Your task to perform on an android device: change the upload size in google photos Image 0: 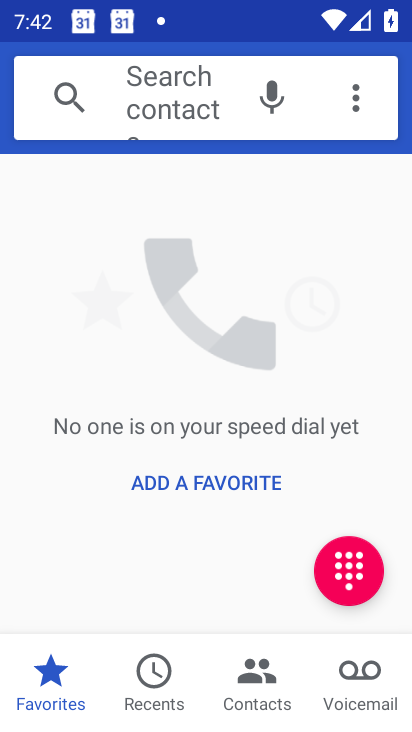
Step 0: press home button
Your task to perform on an android device: change the upload size in google photos Image 1: 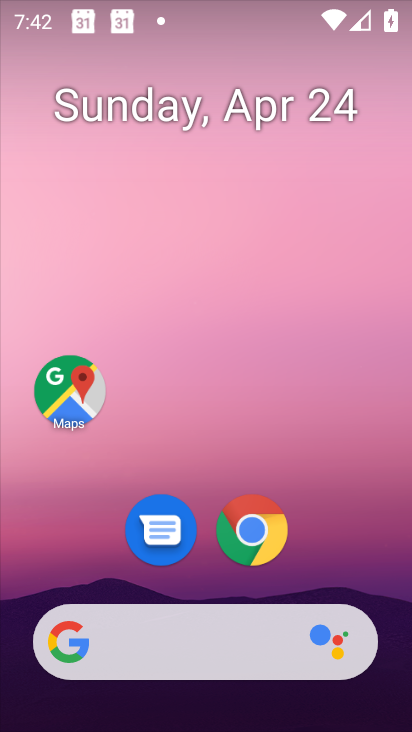
Step 1: drag from (222, 586) to (248, 117)
Your task to perform on an android device: change the upload size in google photos Image 2: 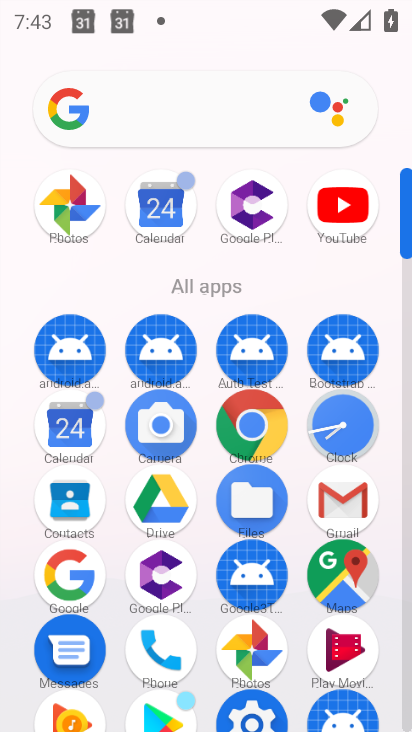
Step 2: click (90, 187)
Your task to perform on an android device: change the upload size in google photos Image 3: 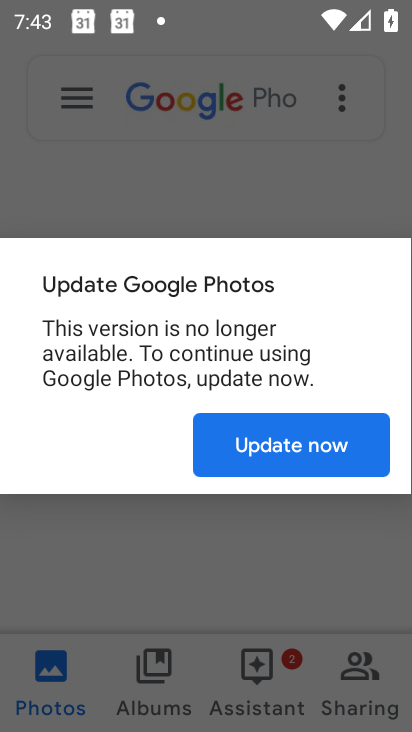
Step 3: click (344, 455)
Your task to perform on an android device: change the upload size in google photos Image 4: 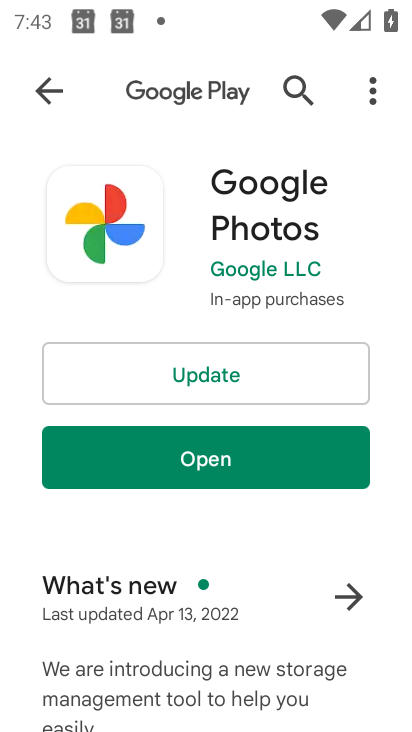
Step 4: click (250, 448)
Your task to perform on an android device: change the upload size in google photos Image 5: 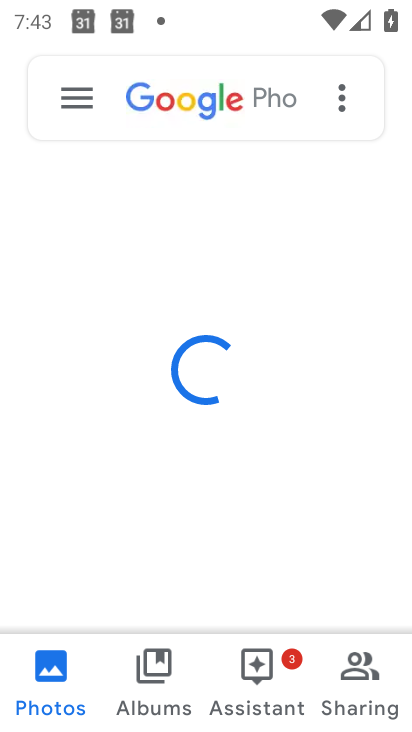
Step 5: click (85, 105)
Your task to perform on an android device: change the upload size in google photos Image 6: 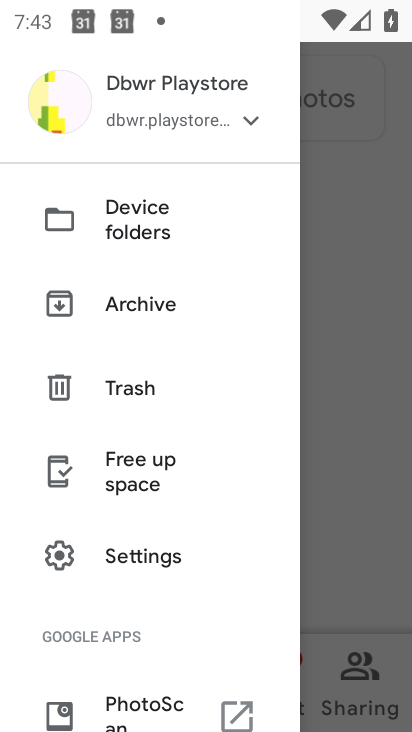
Step 6: click (126, 568)
Your task to perform on an android device: change the upload size in google photos Image 7: 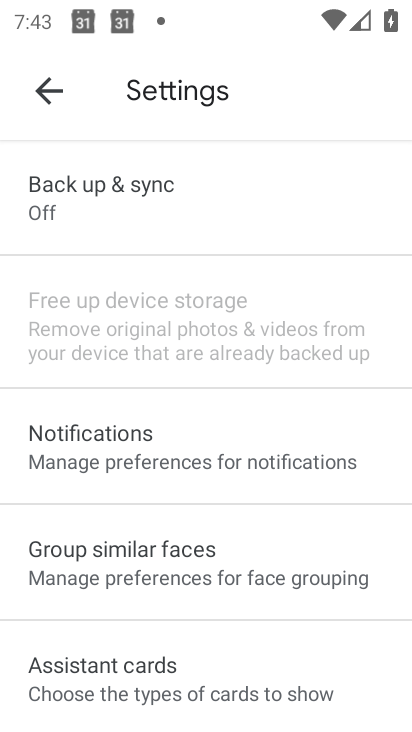
Step 7: click (231, 196)
Your task to perform on an android device: change the upload size in google photos Image 8: 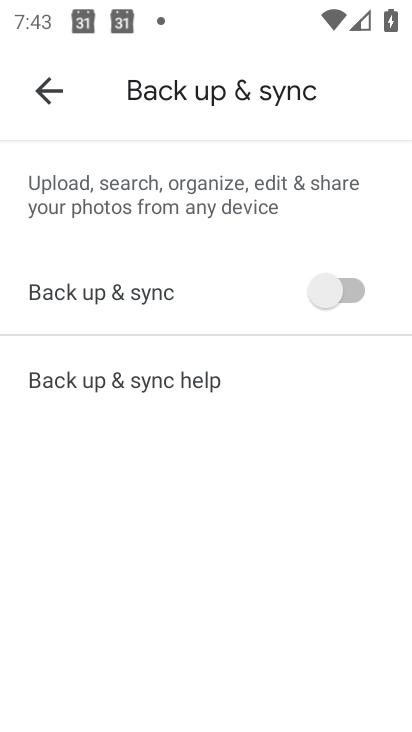
Step 8: click (329, 297)
Your task to perform on an android device: change the upload size in google photos Image 9: 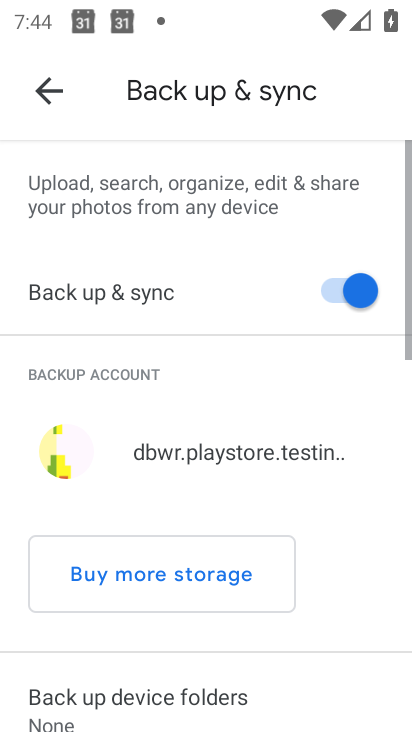
Step 9: drag from (176, 486) to (195, 102)
Your task to perform on an android device: change the upload size in google photos Image 10: 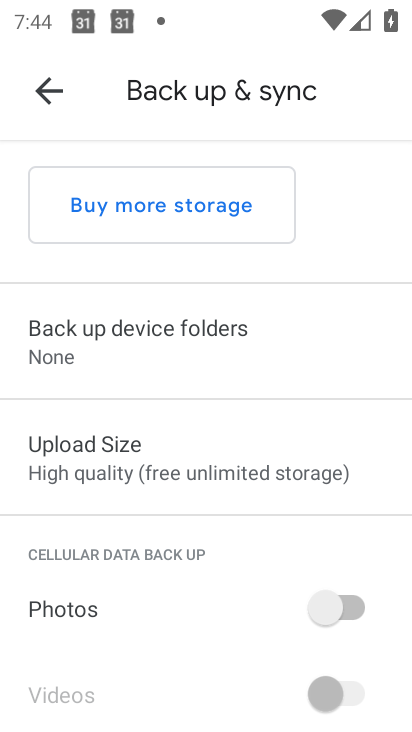
Step 10: click (146, 440)
Your task to perform on an android device: change the upload size in google photos Image 11: 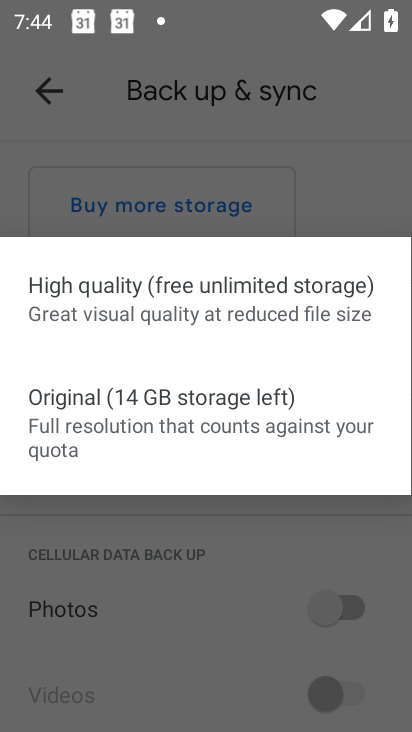
Step 11: click (259, 384)
Your task to perform on an android device: change the upload size in google photos Image 12: 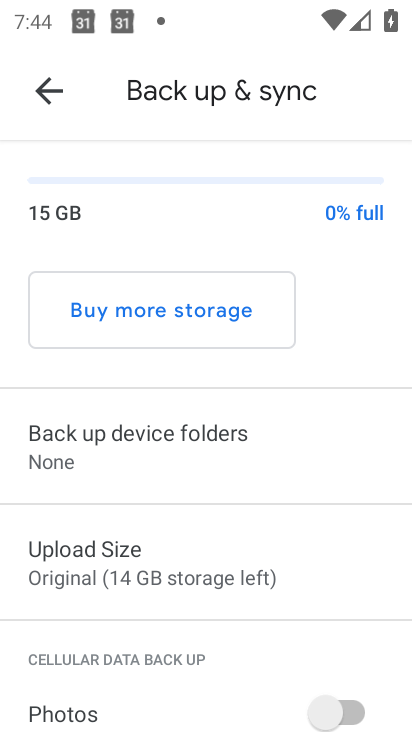
Step 12: task complete